Your task to perform on an android device: turn pop-ups off in chrome Image 0: 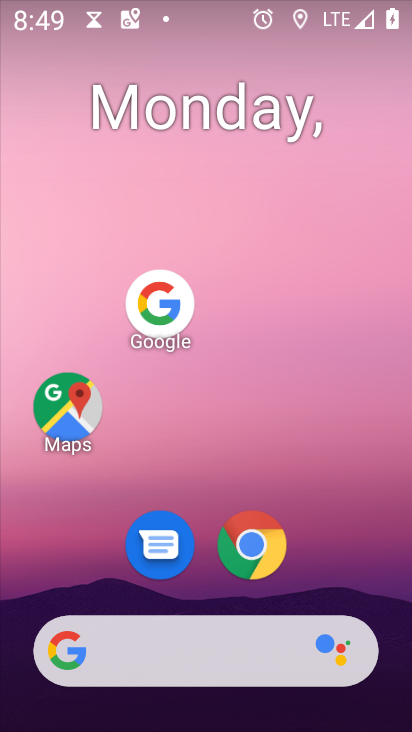
Step 0: press home button
Your task to perform on an android device: turn pop-ups off in chrome Image 1: 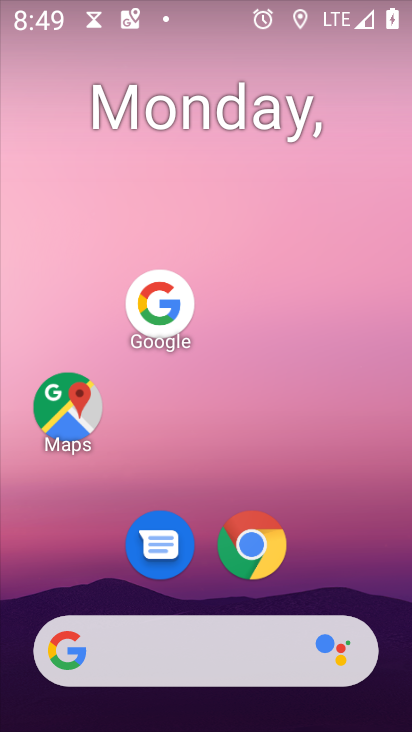
Step 1: click (254, 557)
Your task to perform on an android device: turn pop-ups off in chrome Image 2: 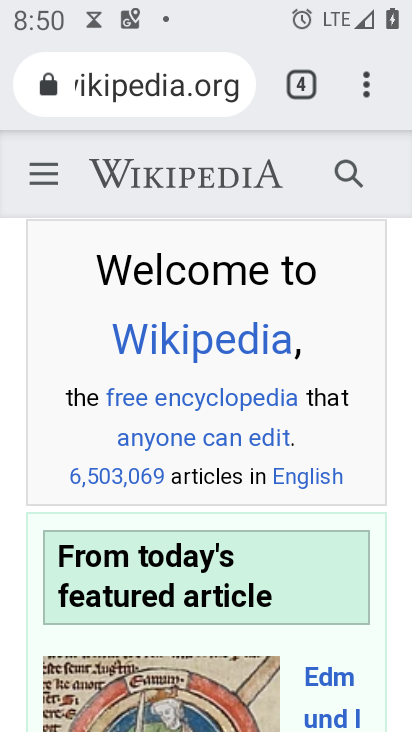
Step 2: drag from (370, 85) to (257, 594)
Your task to perform on an android device: turn pop-ups off in chrome Image 3: 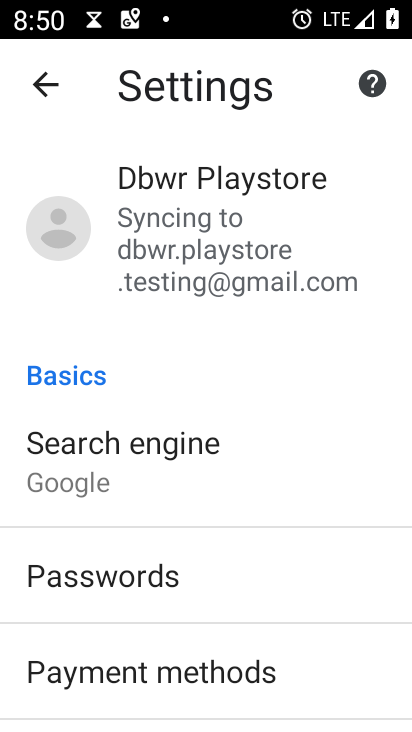
Step 3: drag from (241, 654) to (303, 208)
Your task to perform on an android device: turn pop-ups off in chrome Image 4: 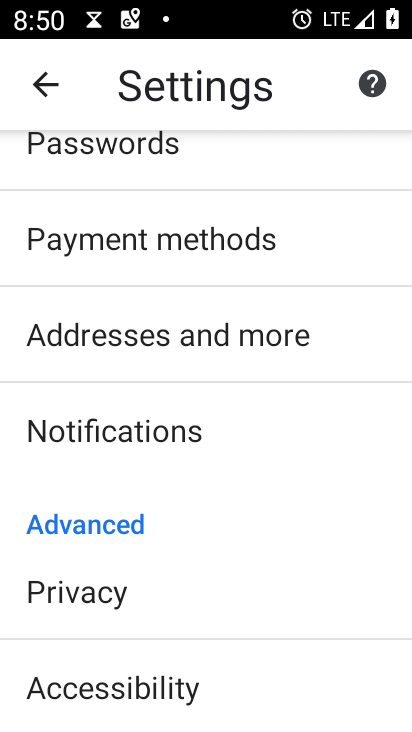
Step 4: drag from (196, 654) to (275, 232)
Your task to perform on an android device: turn pop-ups off in chrome Image 5: 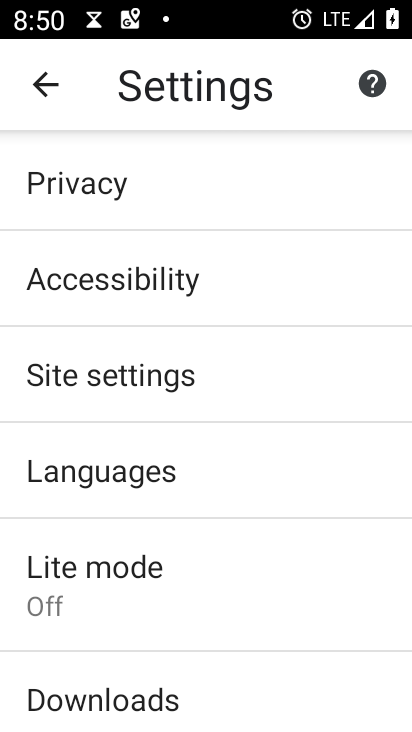
Step 5: click (142, 383)
Your task to perform on an android device: turn pop-ups off in chrome Image 6: 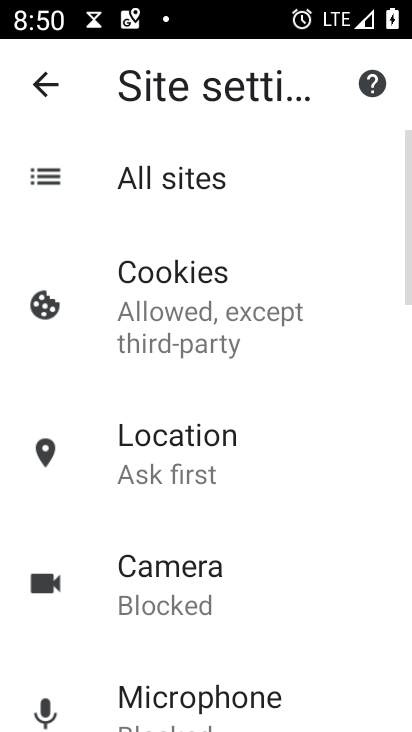
Step 6: drag from (234, 643) to (275, 216)
Your task to perform on an android device: turn pop-ups off in chrome Image 7: 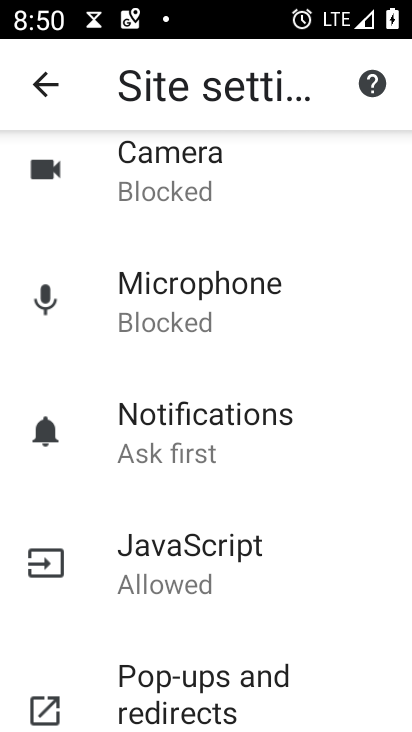
Step 7: drag from (261, 622) to (275, 241)
Your task to perform on an android device: turn pop-ups off in chrome Image 8: 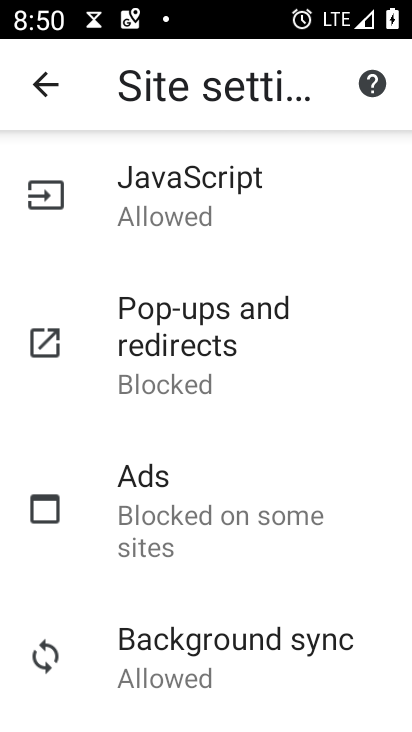
Step 8: click (201, 348)
Your task to perform on an android device: turn pop-ups off in chrome Image 9: 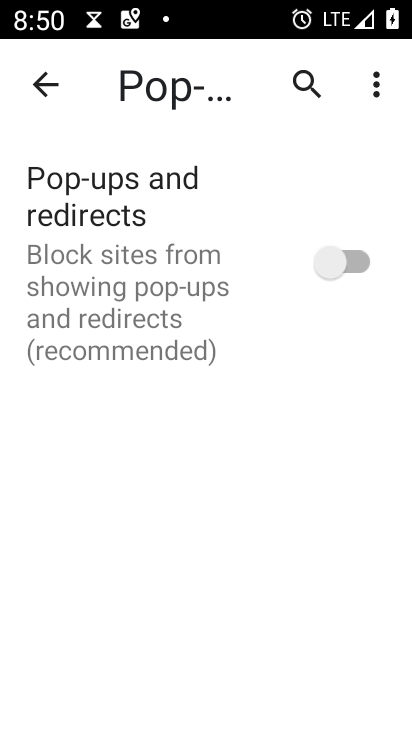
Step 9: task complete